Your task to perform on an android device: See recent photos Image 0: 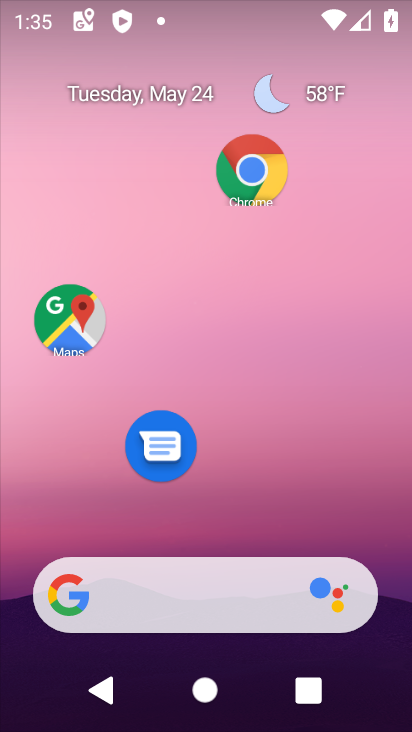
Step 0: drag from (251, 619) to (281, 8)
Your task to perform on an android device: See recent photos Image 1: 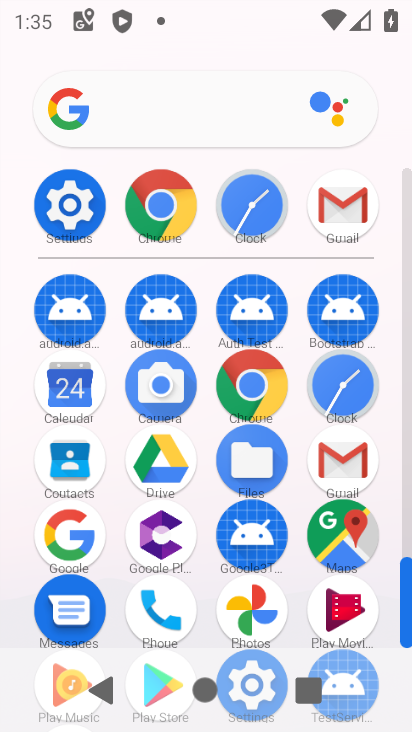
Step 1: click (251, 616)
Your task to perform on an android device: See recent photos Image 2: 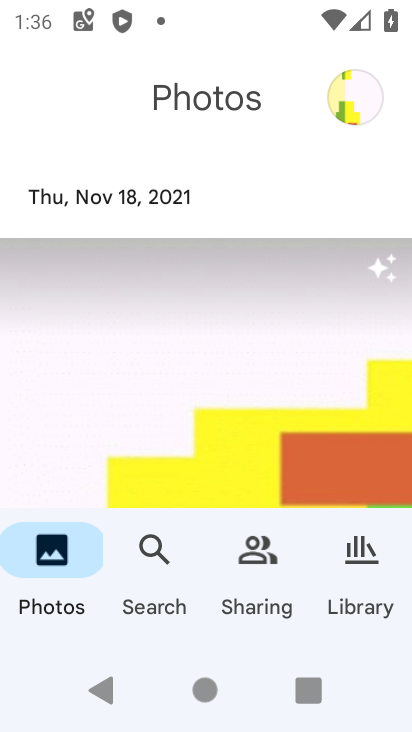
Step 2: task complete